Your task to perform on an android device: Open Google Maps Image 0: 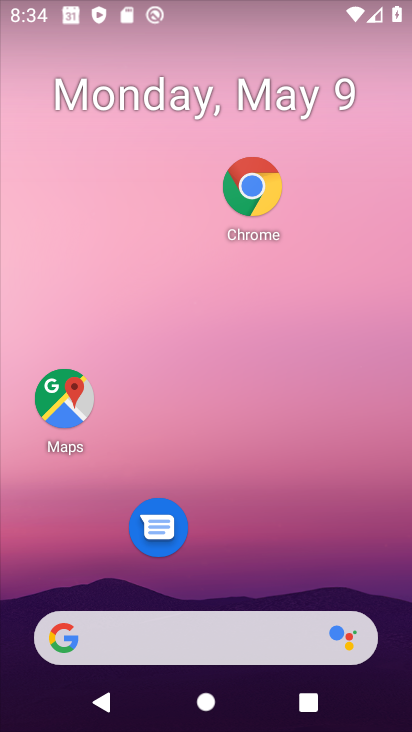
Step 0: press home button
Your task to perform on an android device: Open Google Maps Image 1: 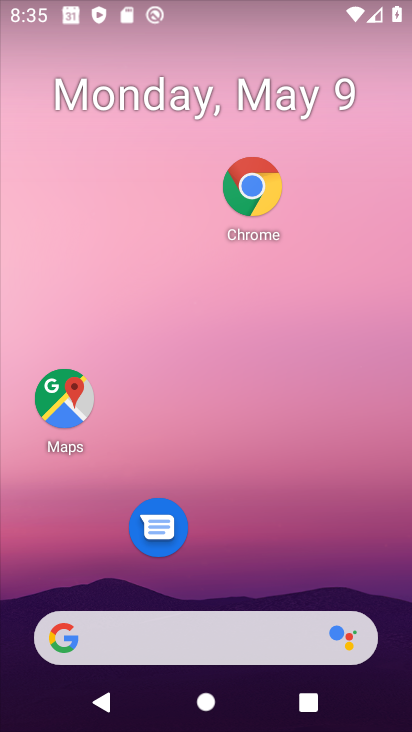
Step 1: click (57, 385)
Your task to perform on an android device: Open Google Maps Image 2: 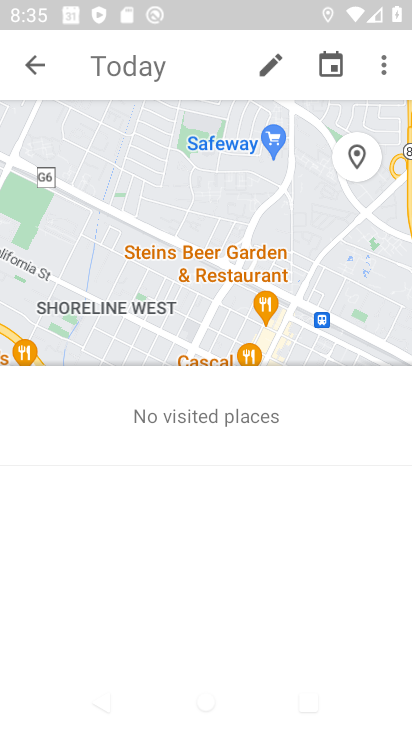
Step 2: click (26, 69)
Your task to perform on an android device: Open Google Maps Image 3: 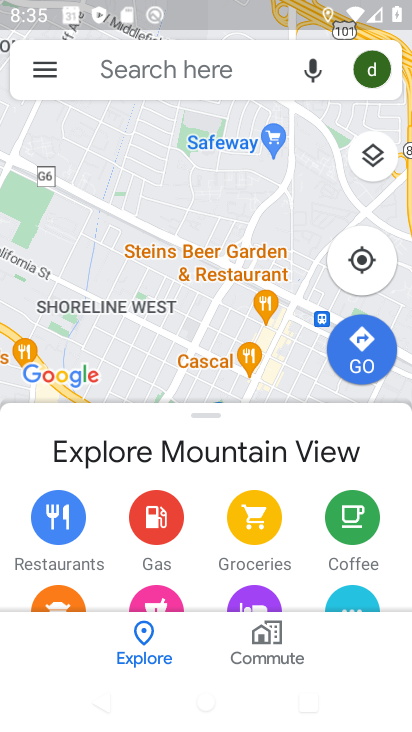
Step 3: task complete